Your task to perform on an android device: See recent photos Image 0: 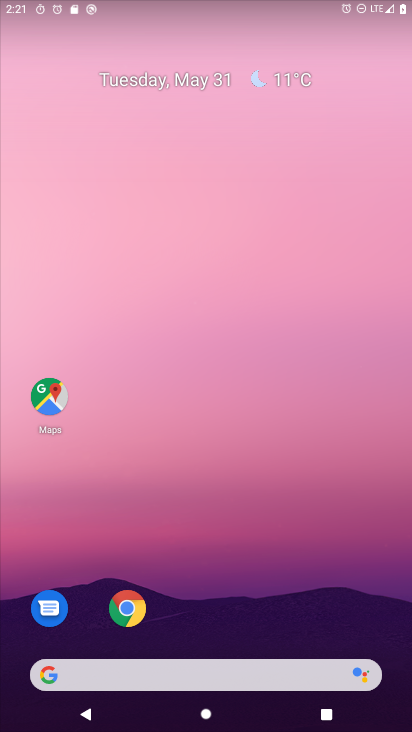
Step 0: drag from (286, 605) to (292, 16)
Your task to perform on an android device: See recent photos Image 1: 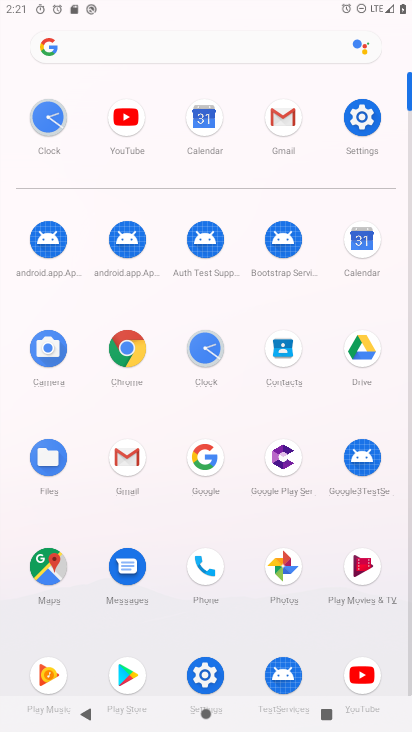
Step 1: click (278, 568)
Your task to perform on an android device: See recent photos Image 2: 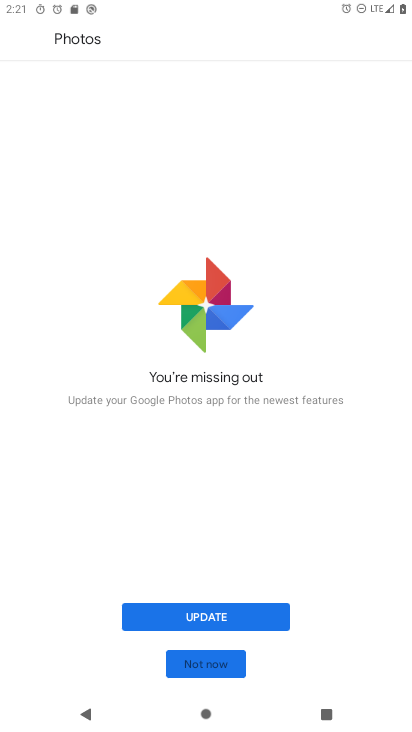
Step 2: click (192, 618)
Your task to perform on an android device: See recent photos Image 3: 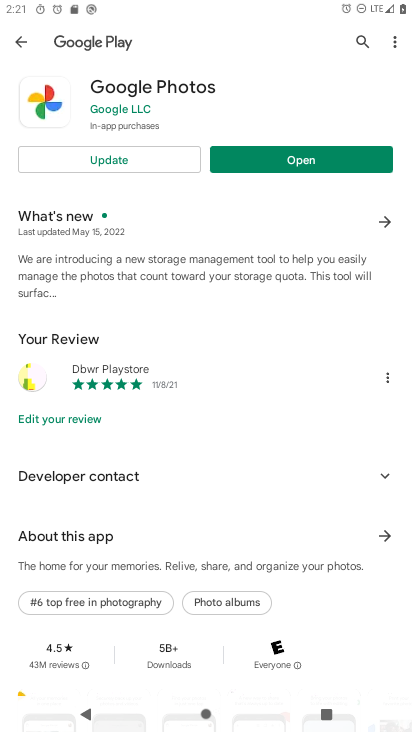
Step 3: click (118, 158)
Your task to perform on an android device: See recent photos Image 4: 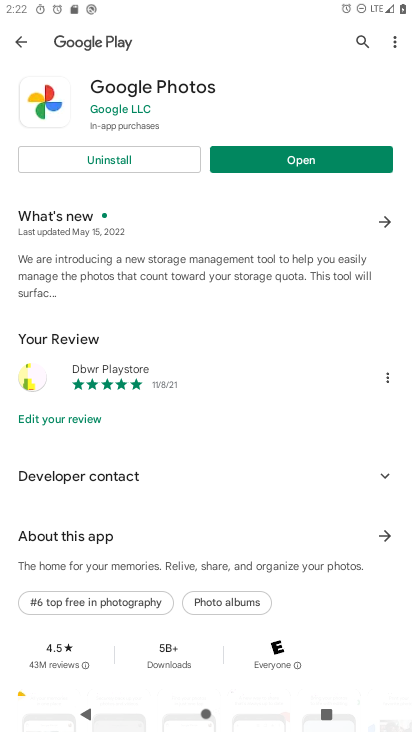
Step 4: click (275, 159)
Your task to perform on an android device: See recent photos Image 5: 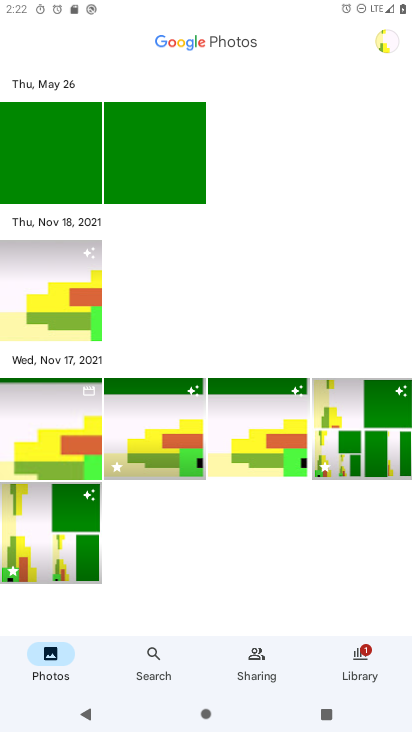
Step 5: click (365, 661)
Your task to perform on an android device: See recent photos Image 6: 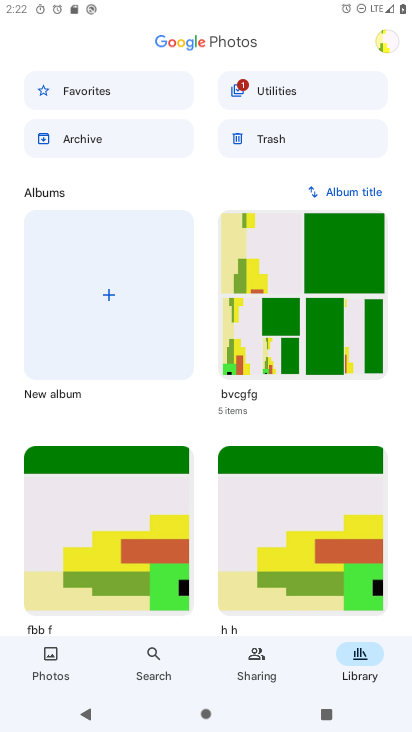
Step 6: click (363, 199)
Your task to perform on an android device: See recent photos Image 7: 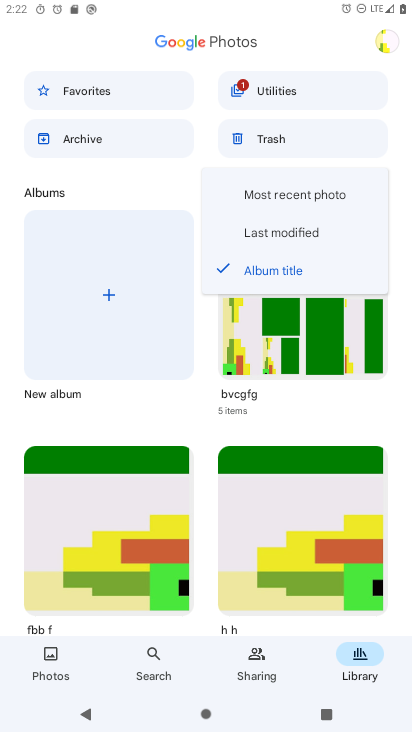
Step 7: click (295, 205)
Your task to perform on an android device: See recent photos Image 8: 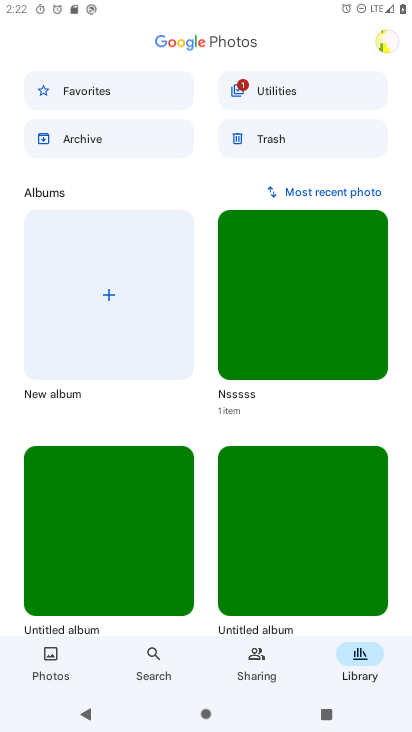
Step 8: task complete